Your task to perform on an android device: Go to network settings Image 0: 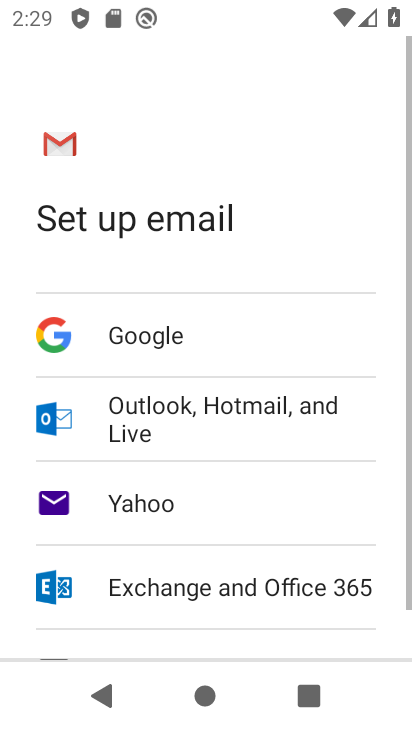
Step 0: press home button
Your task to perform on an android device: Go to network settings Image 1: 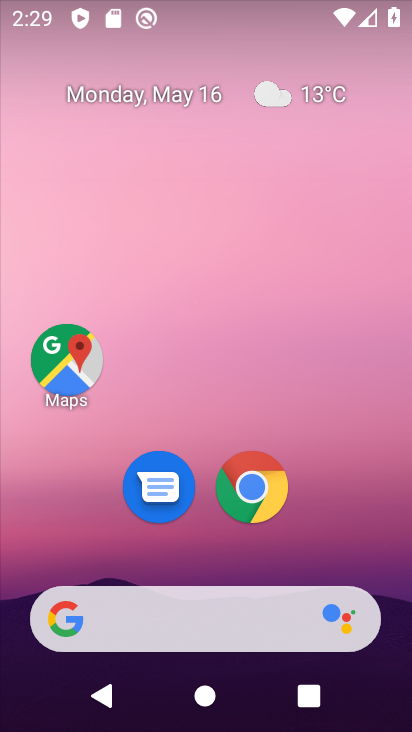
Step 1: drag from (0, 0) to (218, 200)
Your task to perform on an android device: Go to network settings Image 2: 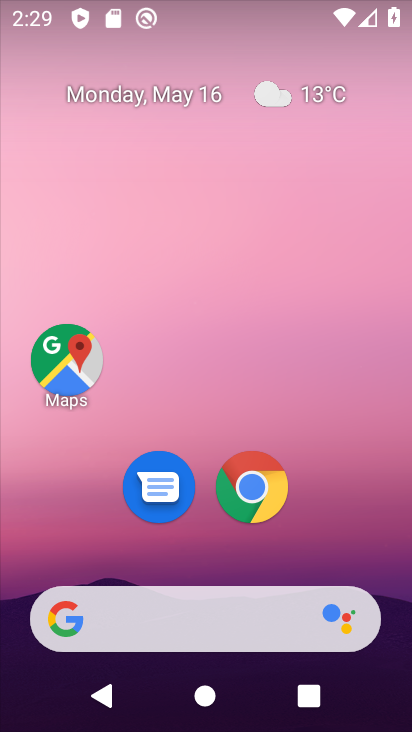
Step 2: drag from (316, 463) to (283, 103)
Your task to perform on an android device: Go to network settings Image 3: 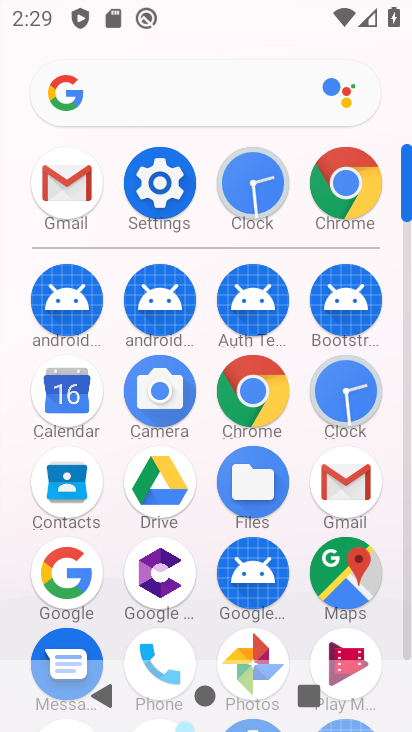
Step 3: click (164, 195)
Your task to perform on an android device: Go to network settings Image 4: 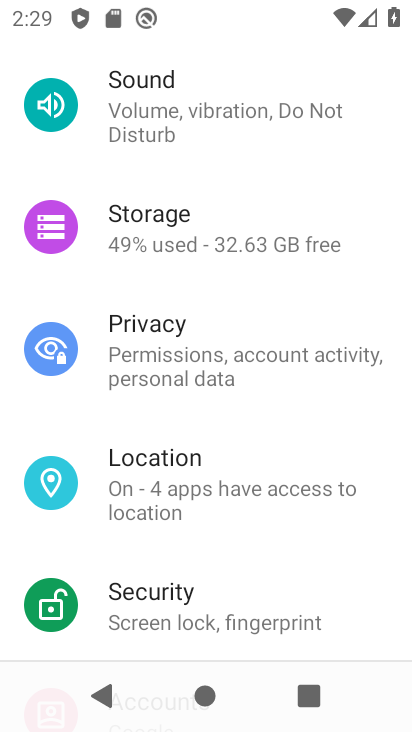
Step 4: drag from (188, 231) to (186, 639)
Your task to perform on an android device: Go to network settings Image 5: 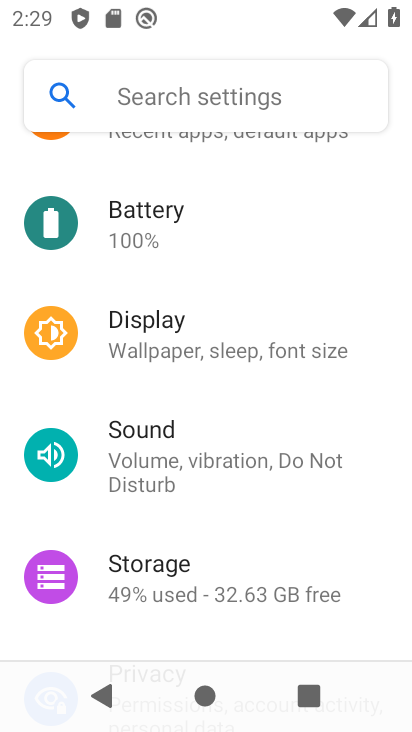
Step 5: drag from (179, 271) to (182, 461)
Your task to perform on an android device: Go to network settings Image 6: 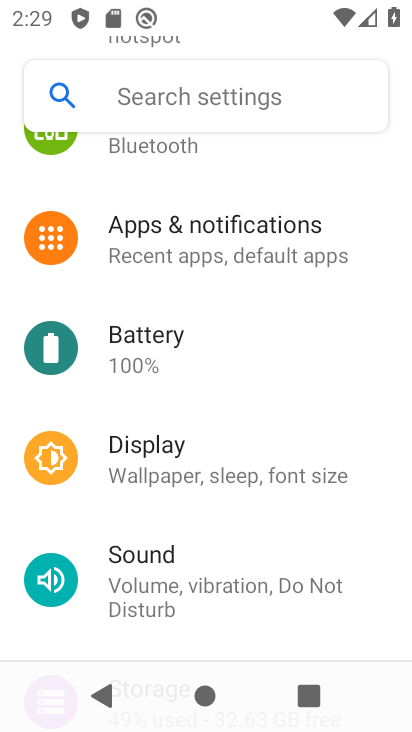
Step 6: drag from (195, 283) to (174, 609)
Your task to perform on an android device: Go to network settings Image 7: 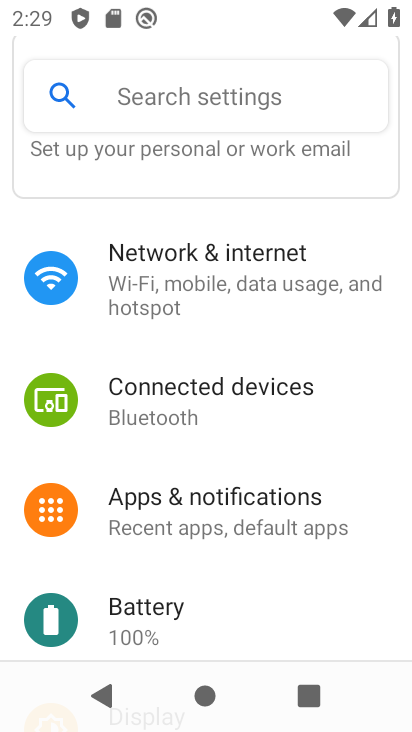
Step 7: click (172, 284)
Your task to perform on an android device: Go to network settings Image 8: 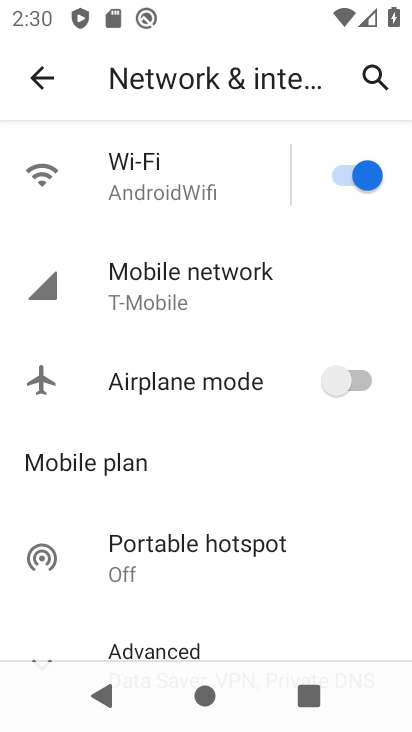
Step 8: click (216, 283)
Your task to perform on an android device: Go to network settings Image 9: 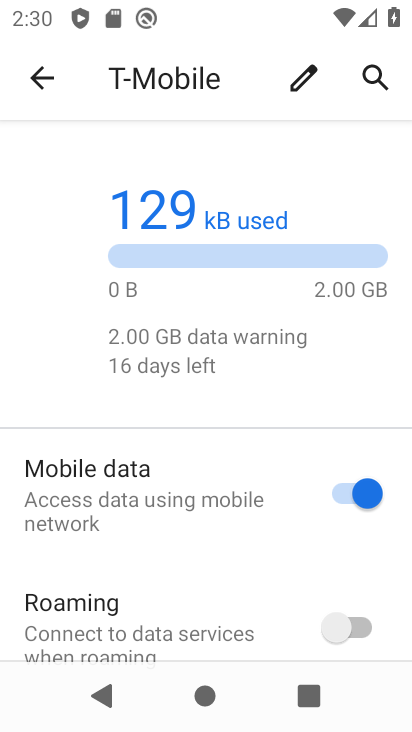
Step 9: task complete